Your task to perform on an android device: Show me popular videos on Youtube Image 0: 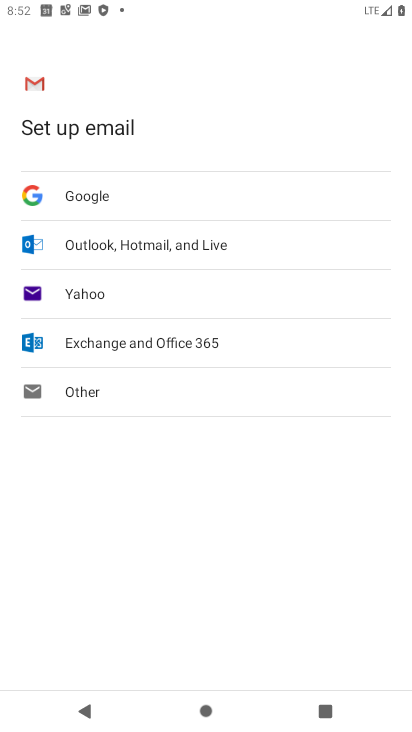
Step 0: press home button
Your task to perform on an android device: Show me popular videos on Youtube Image 1: 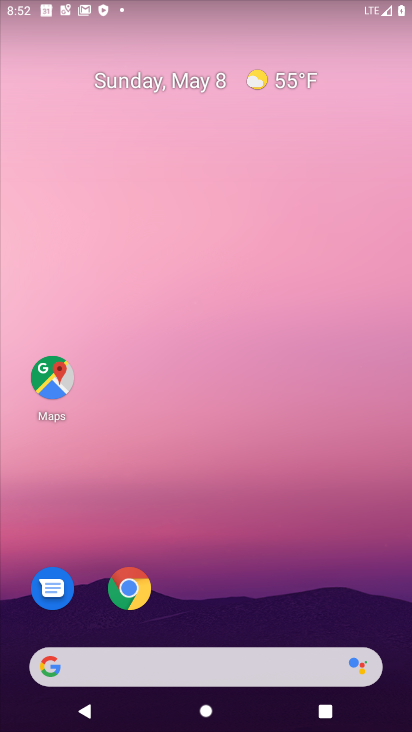
Step 1: drag from (295, 613) to (229, 53)
Your task to perform on an android device: Show me popular videos on Youtube Image 2: 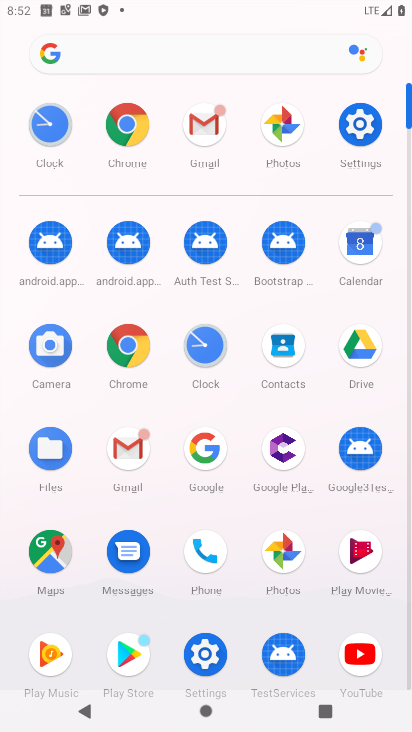
Step 2: click (366, 662)
Your task to perform on an android device: Show me popular videos on Youtube Image 3: 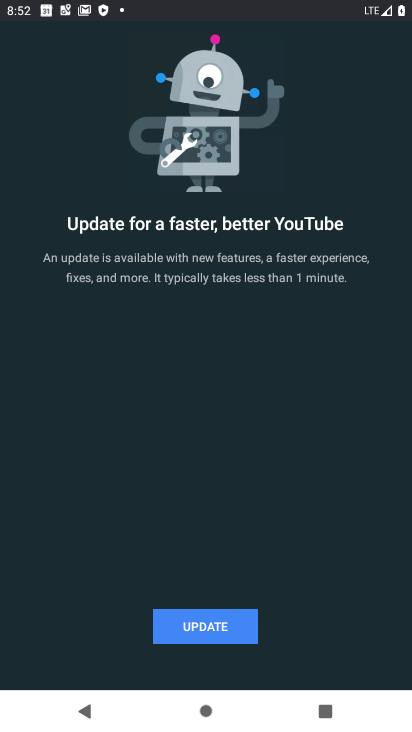
Step 3: click (199, 638)
Your task to perform on an android device: Show me popular videos on Youtube Image 4: 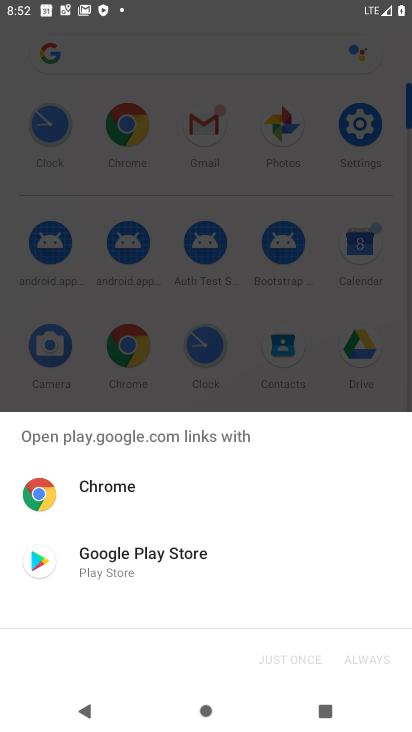
Step 4: click (109, 549)
Your task to perform on an android device: Show me popular videos on Youtube Image 5: 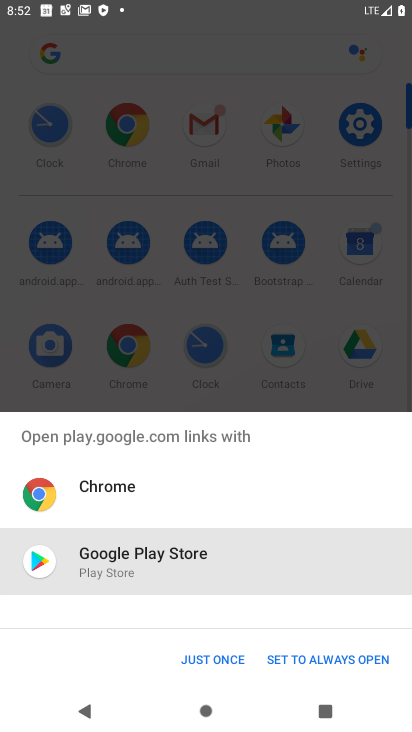
Step 5: click (165, 668)
Your task to perform on an android device: Show me popular videos on Youtube Image 6: 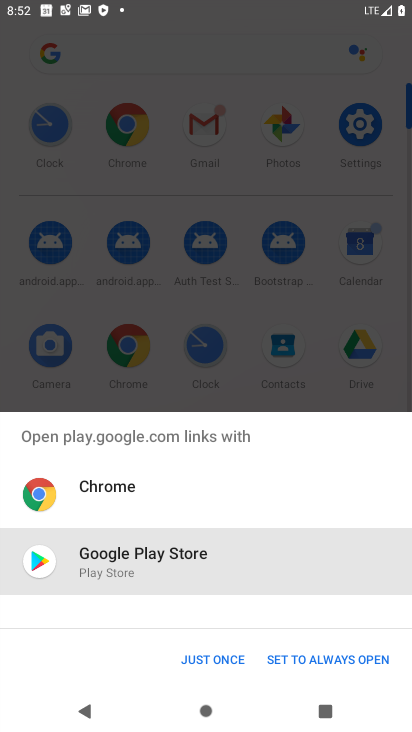
Step 6: click (206, 659)
Your task to perform on an android device: Show me popular videos on Youtube Image 7: 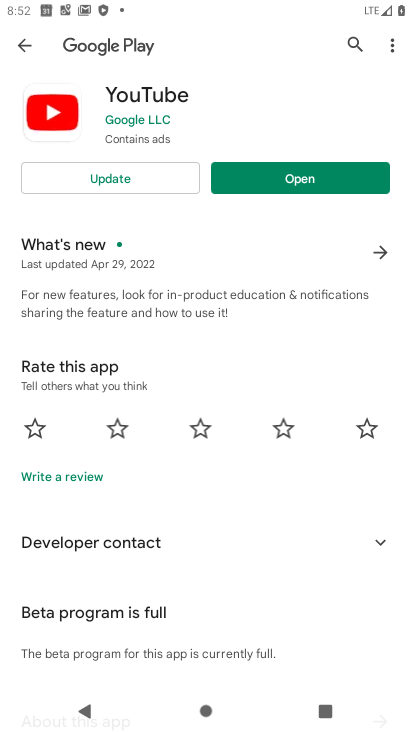
Step 7: click (122, 177)
Your task to perform on an android device: Show me popular videos on Youtube Image 8: 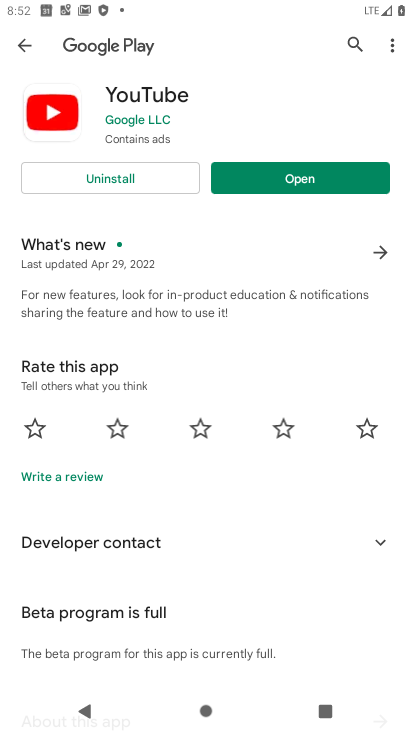
Step 8: click (266, 178)
Your task to perform on an android device: Show me popular videos on Youtube Image 9: 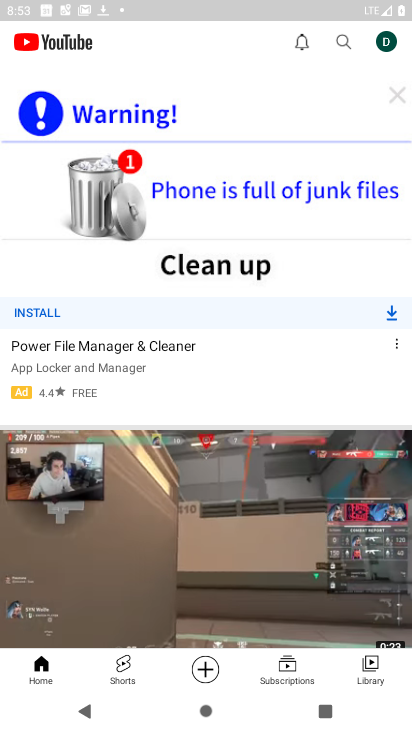
Step 9: click (378, 684)
Your task to perform on an android device: Show me popular videos on Youtube Image 10: 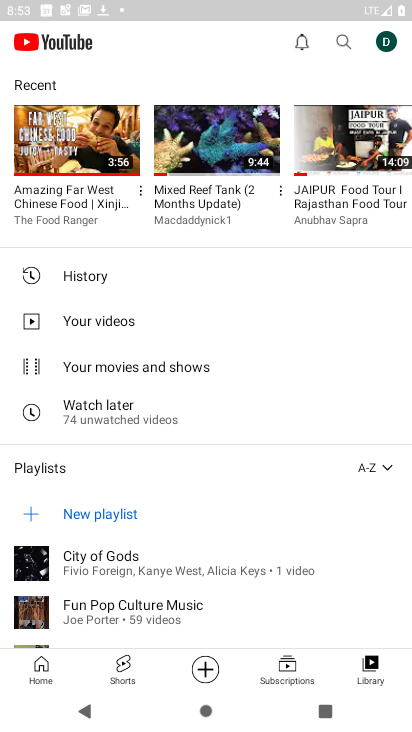
Step 10: task complete